Your task to perform on an android device: Go to wifi settings Image 0: 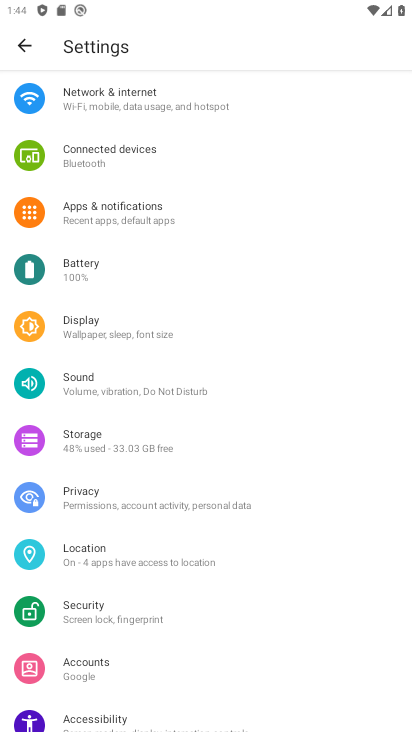
Step 0: click (65, 99)
Your task to perform on an android device: Go to wifi settings Image 1: 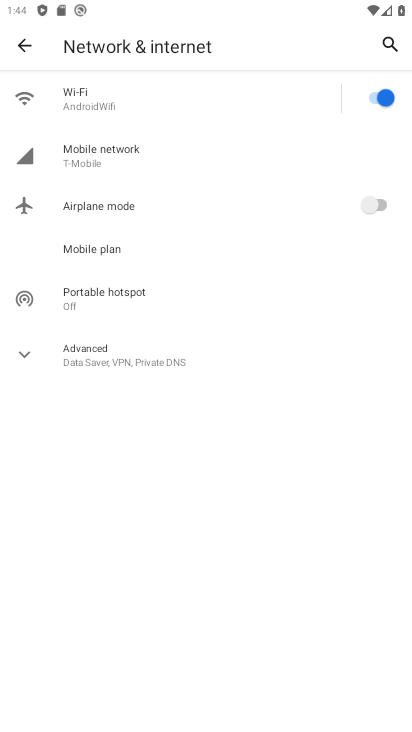
Step 1: click (66, 99)
Your task to perform on an android device: Go to wifi settings Image 2: 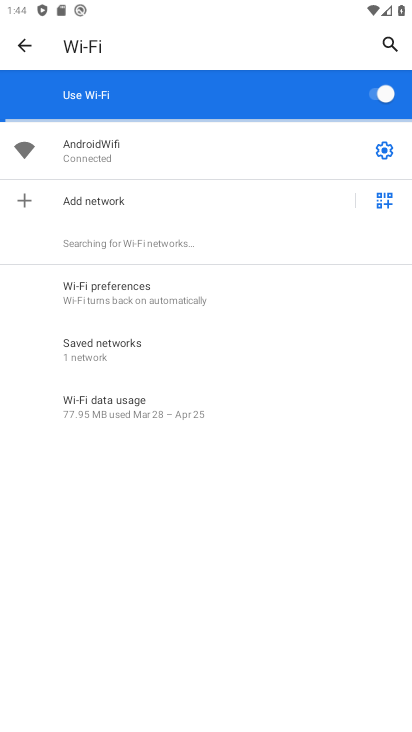
Step 2: task complete